Your task to perform on an android device: turn off location Image 0: 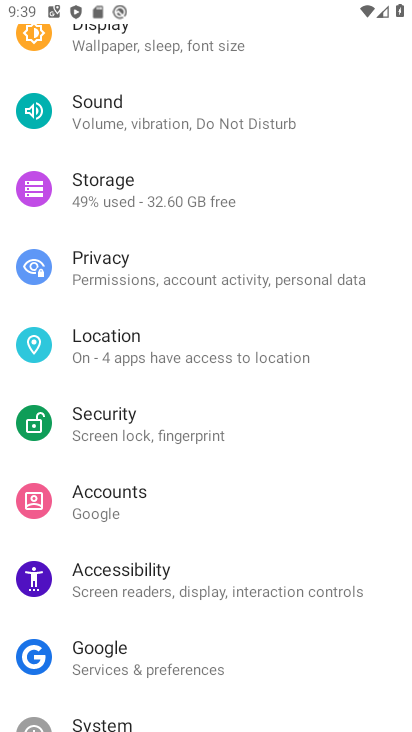
Step 0: click (137, 342)
Your task to perform on an android device: turn off location Image 1: 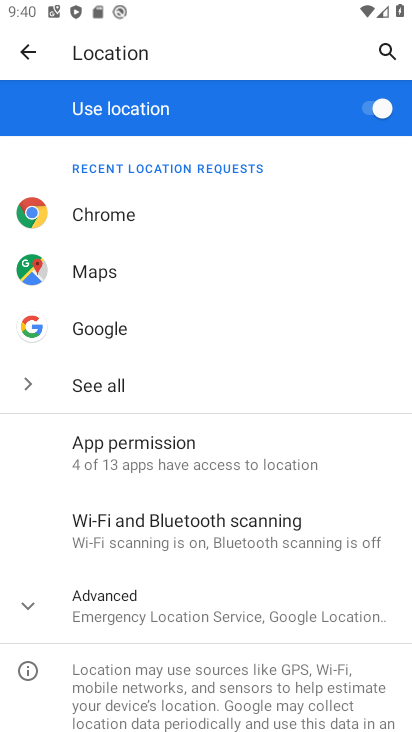
Step 1: click (370, 114)
Your task to perform on an android device: turn off location Image 2: 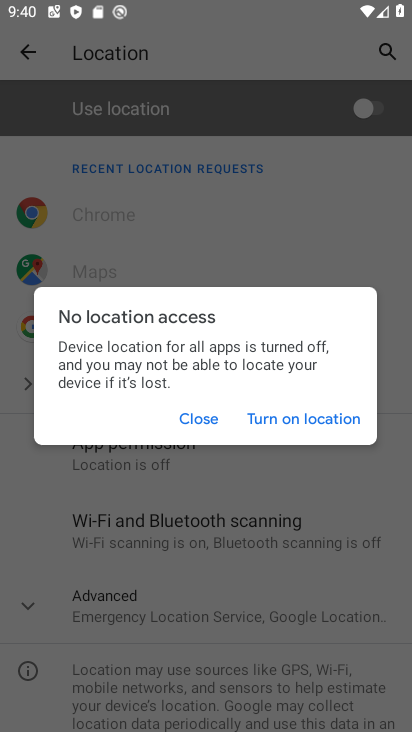
Step 2: click (190, 423)
Your task to perform on an android device: turn off location Image 3: 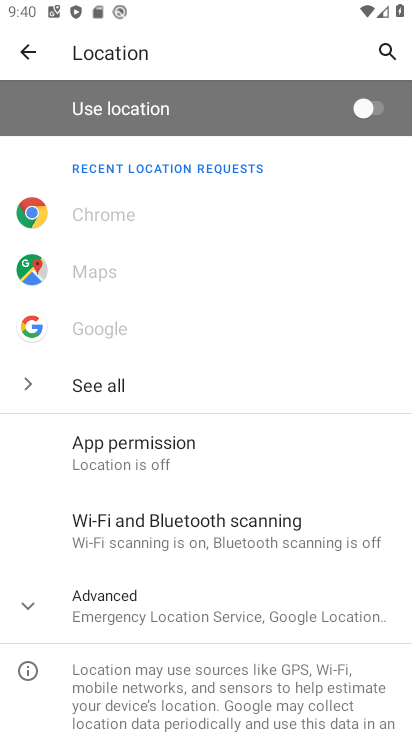
Step 3: task complete